Your task to perform on an android device: Search for Italian restaurants on Maps Image 0: 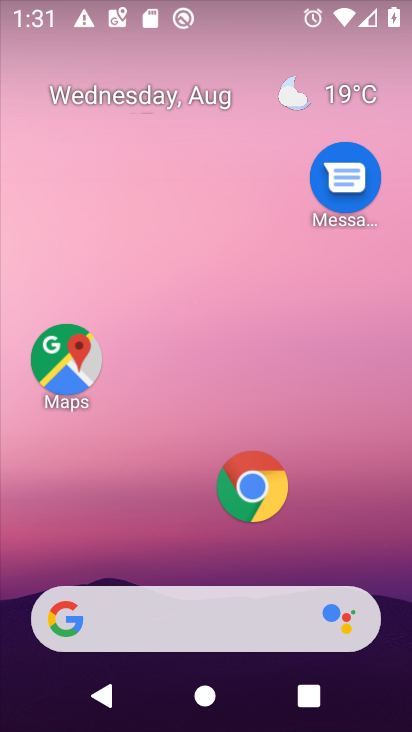
Step 0: click (67, 370)
Your task to perform on an android device: Search for Italian restaurants on Maps Image 1: 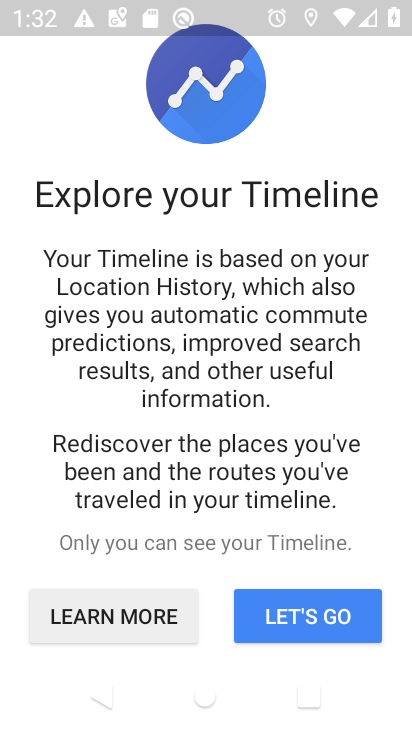
Step 1: click (299, 618)
Your task to perform on an android device: Search for Italian restaurants on Maps Image 2: 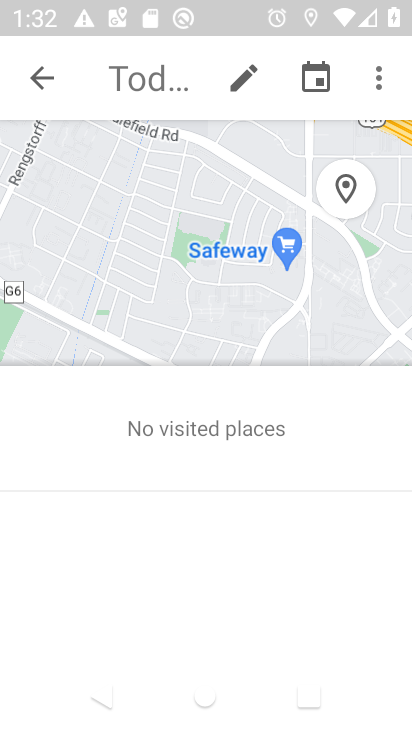
Step 2: press back button
Your task to perform on an android device: Search for Italian restaurants on Maps Image 3: 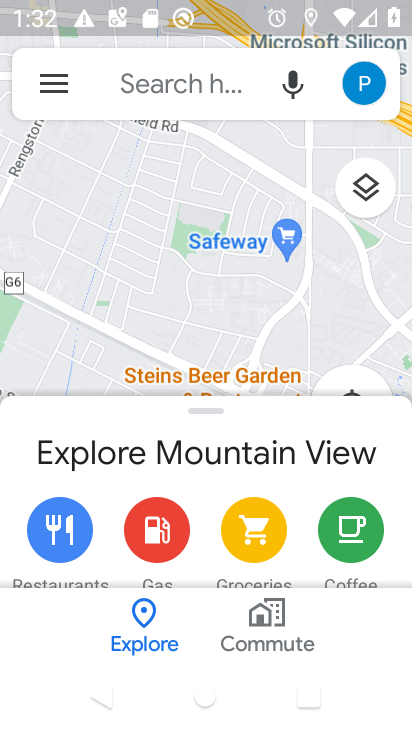
Step 3: click (141, 91)
Your task to perform on an android device: Search for Italian restaurants on Maps Image 4: 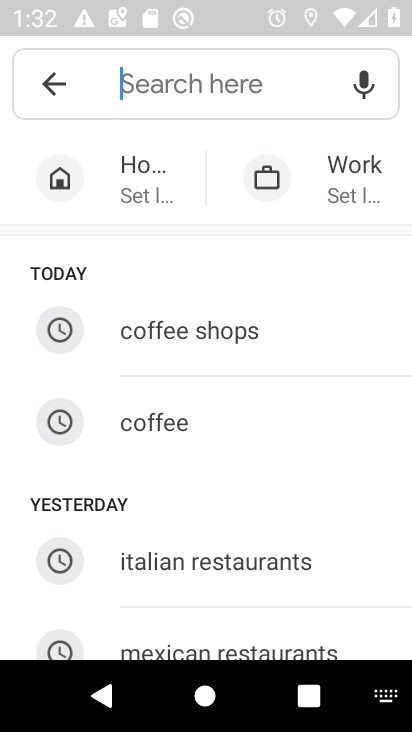
Step 4: click (213, 553)
Your task to perform on an android device: Search for Italian restaurants on Maps Image 5: 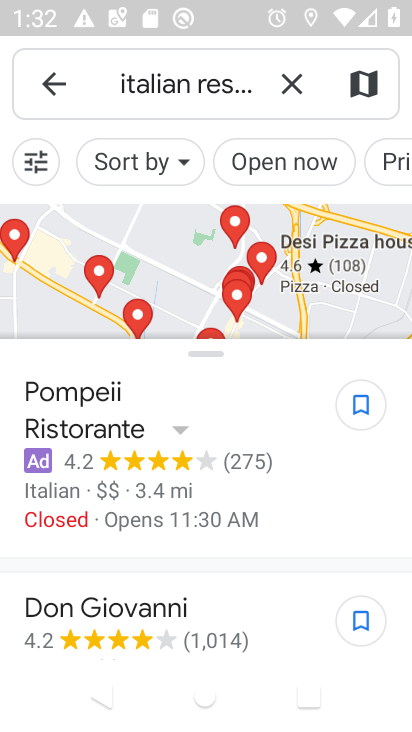
Step 5: task complete